Your task to perform on an android device: turn off improve location accuracy Image 0: 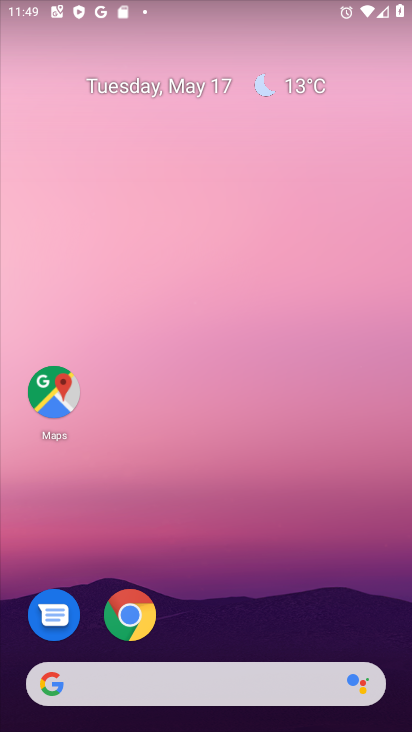
Step 0: drag from (287, 570) to (326, 122)
Your task to perform on an android device: turn off improve location accuracy Image 1: 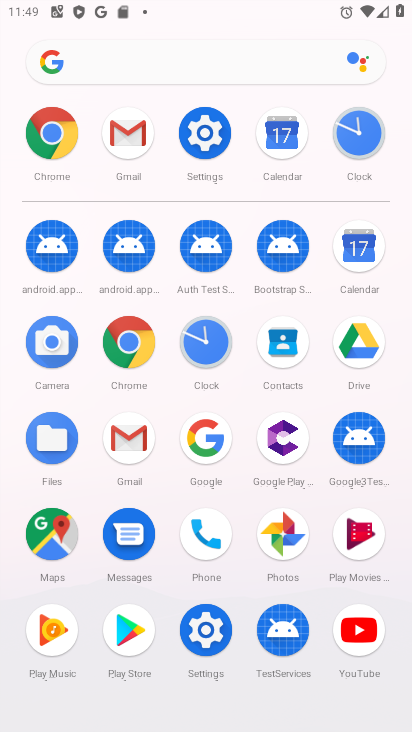
Step 1: click (218, 135)
Your task to perform on an android device: turn off improve location accuracy Image 2: 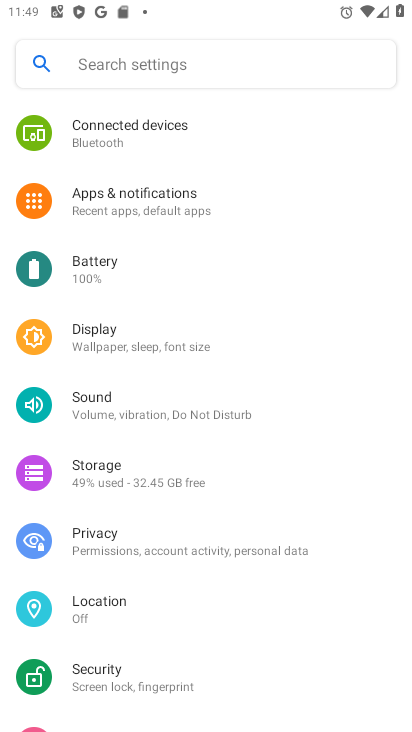
Step 2: drag from (268, 607) to (312, 280)
Your task to perform on an android device: turn off improve location accuracy Image 3: 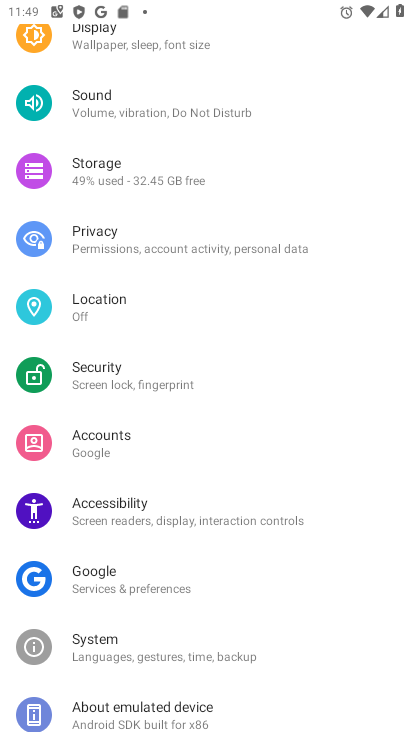
Step 3: click (124, 311)
Your task to perform on an android device: turn off improve location accuracy Image 4: 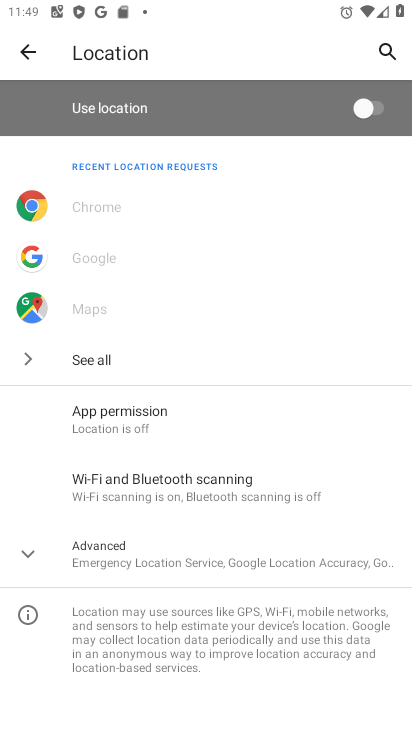
Step 4: click (144, 550)
Your task to perform on an android device: turn off improve location accuracy Image 5: 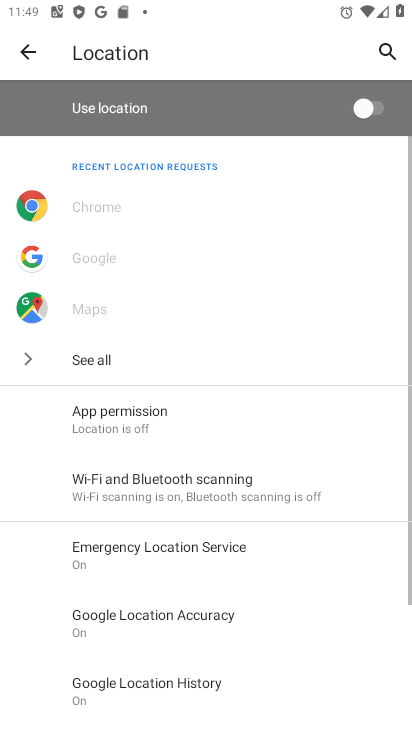
Step 5: drag from (284, 682) to (299, 359)
Your task to perform on an android device: turn off improve location accuracy Image 6: 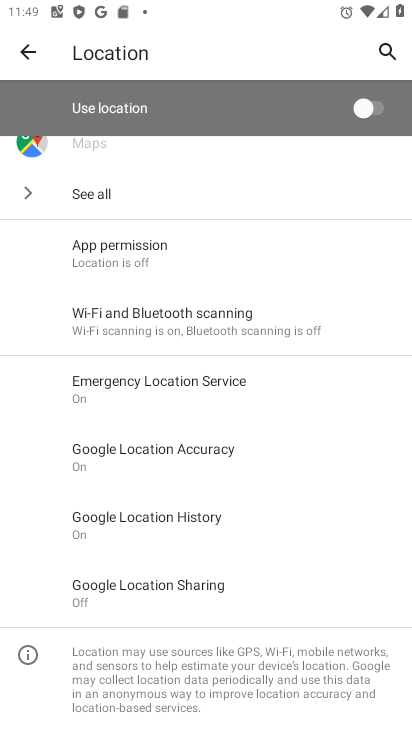
Step 6: click (160, 448)
Your task to perform on an android device: turn off improve location accuracy Image 7: 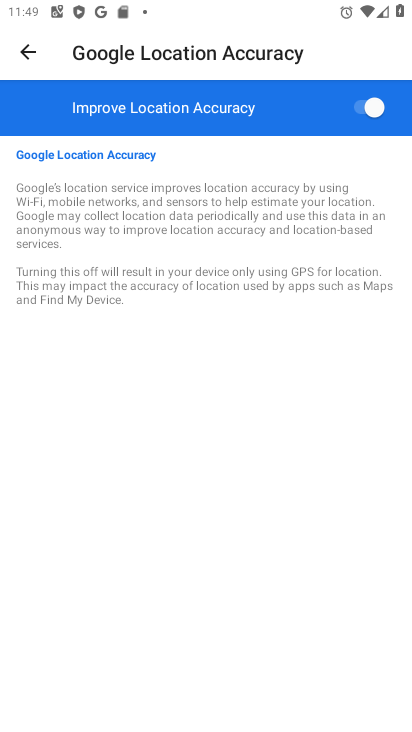
Step 7: click (391, 113)
Your task to perform on an android device: turn off improve location accuracy Image 8: 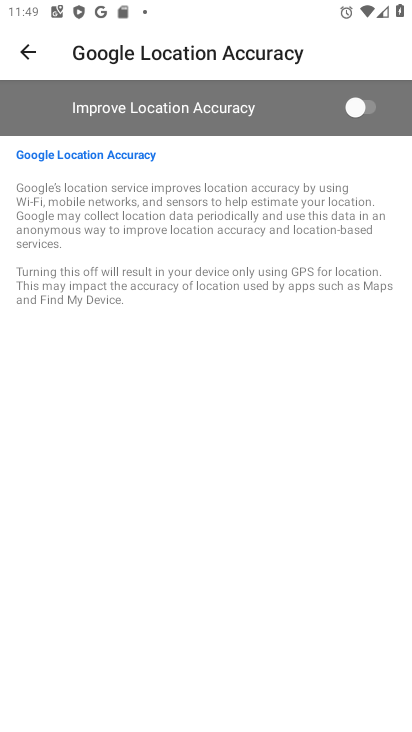
Step 8: task complete